Your task to perform on an android device: Search for seafood restaurants on Google Maps Image 0: 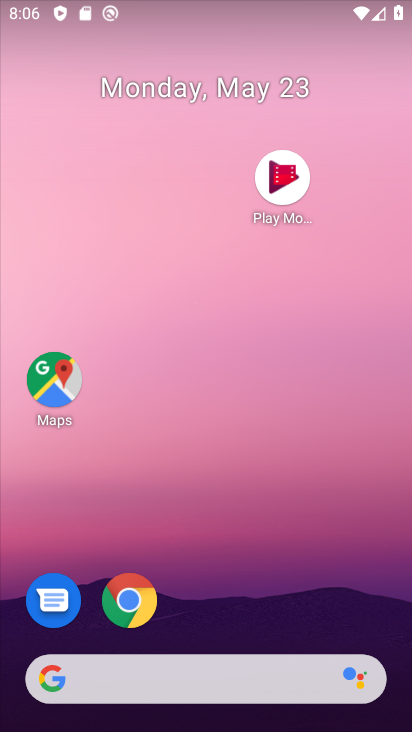
Step 0: drag from (164, 275) to (152, 228)
Your task to perform on an android device: Search for seafood restaurants on Google Maps Image 1: 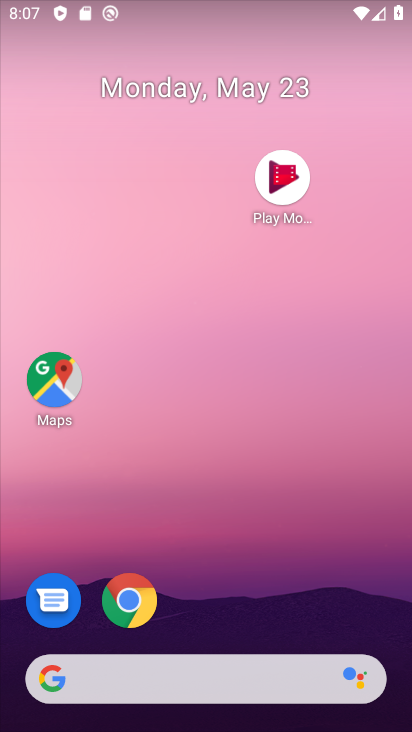
Step 1: drag from (312, 678) to (272, 36)
Your task to perform on an android device: Search for seafood restaurants on Google Maps Image 2: 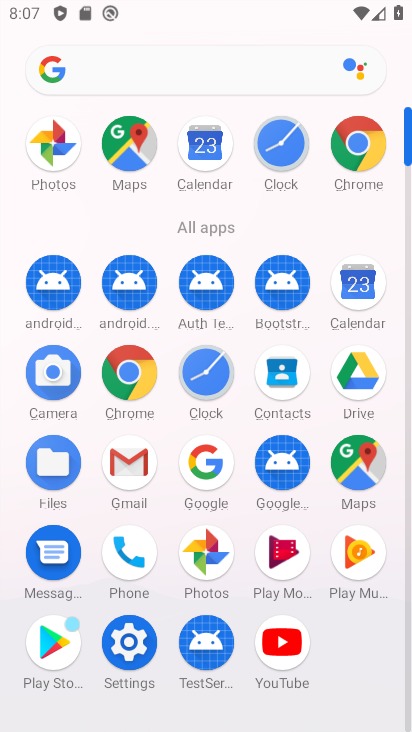
Step 2: click (361, 458)
Your task to perform on an android device: Search for seafood restaurants on Google Maps Image 3: 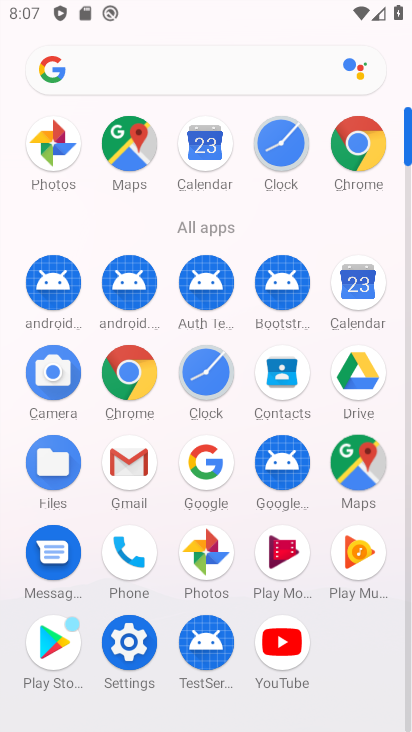
Step 3: click (361, 458)
Your task to perform on an android device: Search for seafood restaurants on Google Maps Image 4: 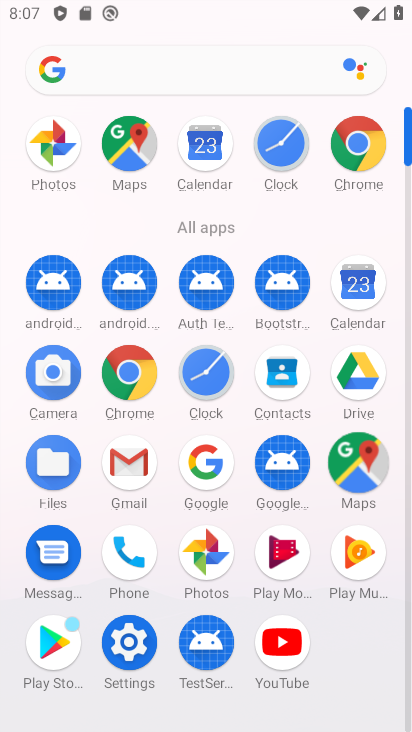
Step 4: click (361, 458)
Your task to perform on an android device: Search for seafood restaurants on Google Maps Image 5: 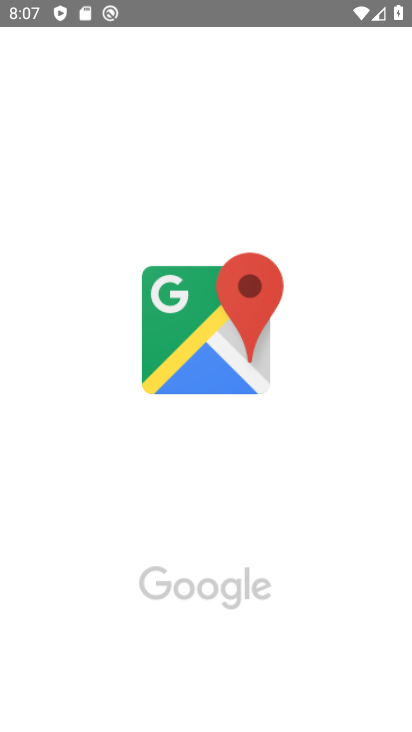
Step 5: click (368, 448)
Your task to perform on an android device: Search for seafood restaurants on Google Maps Image 6: 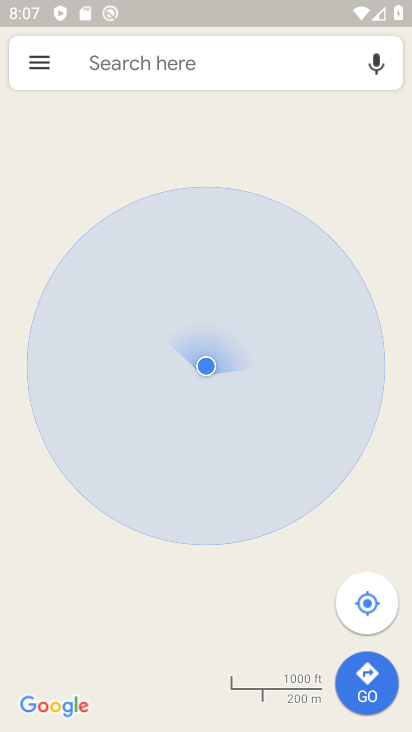
Step 6: click (66, 70)
Your task to perform on an android device: Search for seafood restaurants on Google Maps Image 7: 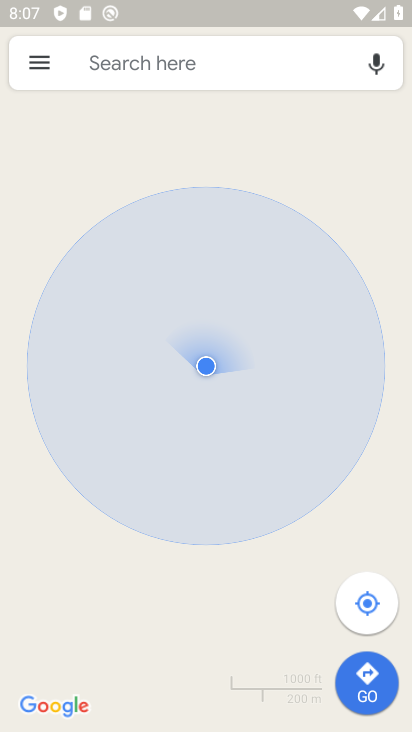
Step 7: click (89, 61)
Your task to perform on an android device: Search for seafood restaurants on Google Maps Image 8: 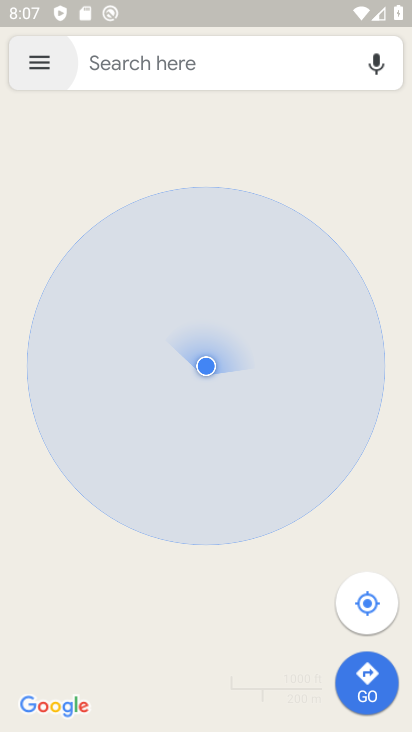
Step 8: click (94, 60)
Your task to perform on an android device: Search for seafood restaurants on Google Maps Image 9: 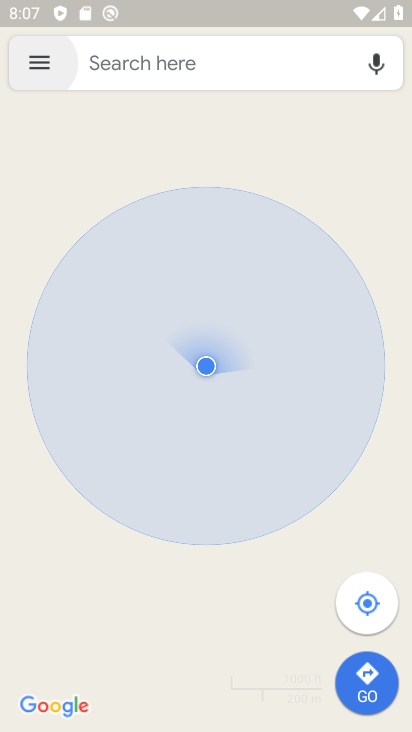
Step 9: click (94, 60)
Your task to perform on an android device: Search for seafood restaurants on Google Maps Image 10: 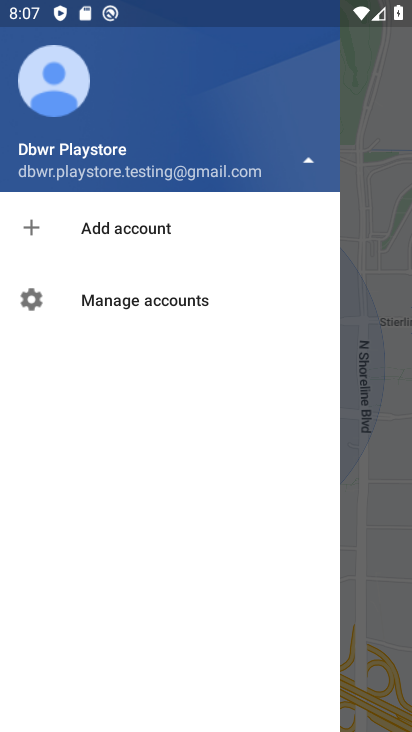
Step 10: click (376, 245)
Your task to perform on an android device: Search for seafood restaurants on Google Maps Image 11: 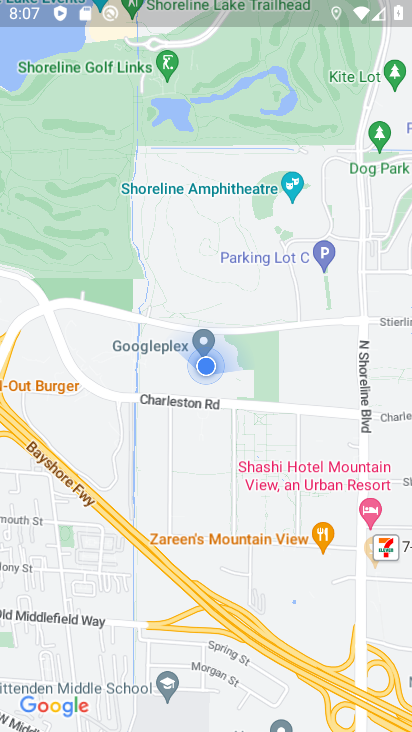
Step 11: drag from (178, 51) to (240, 472)
Your task to perform on an android device: Search for seafood restaurants on Google Maps Image 12: 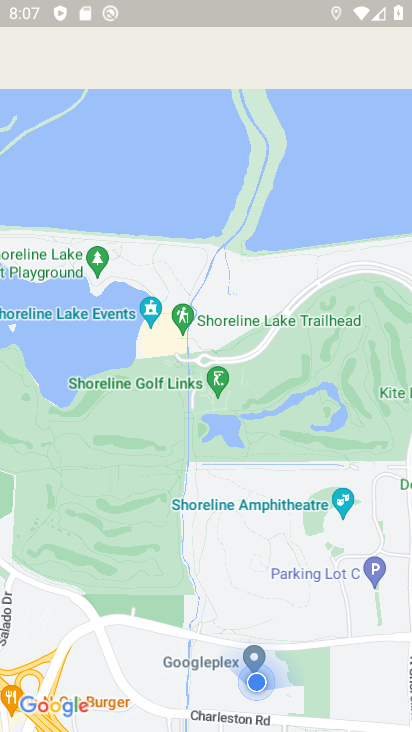
Step 12: drag from (116, 144) to (180, 395)
Your task to perform on an android device: Search for seafood restaurants on Google Maps Image 13: 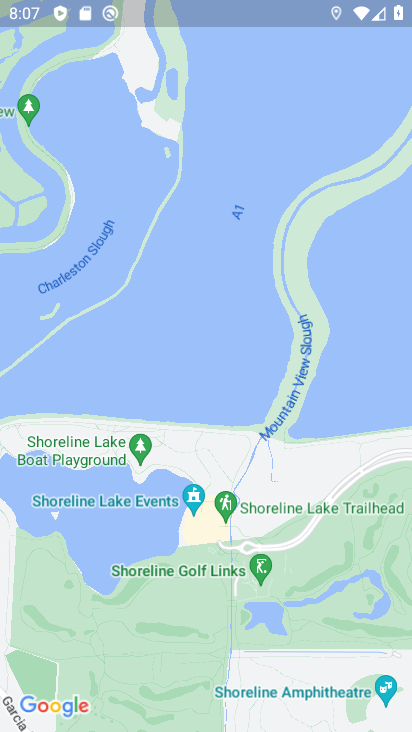
Step 13: drag from (153, 212) to (208, 545)
Your task to perform on an android device: Search for seafood restaurants on Google Maps Image 14: 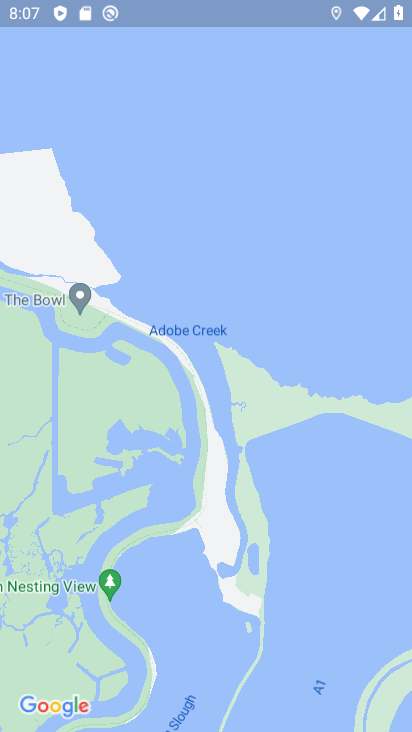
Step 14: drag from (140, 141) to (244, 652)
Your task to perform on an android device: Search for seafood restaurants on Google Maps Image 15: 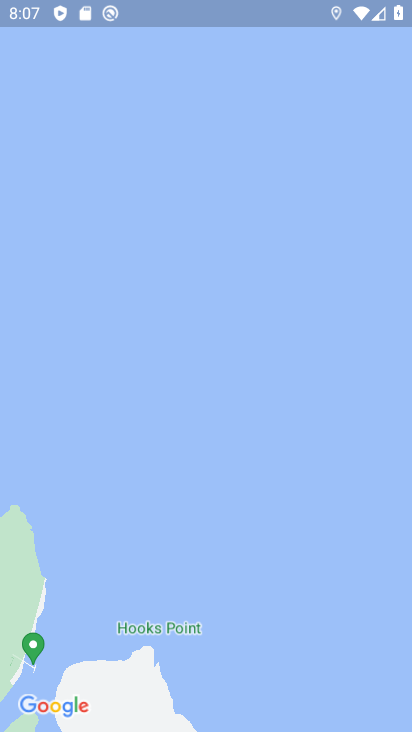
Step 15: drag from (219, 565) to (222, 529)
Your task to perform on an android device: Search for seafood restaurants on Google Maps Image 16: 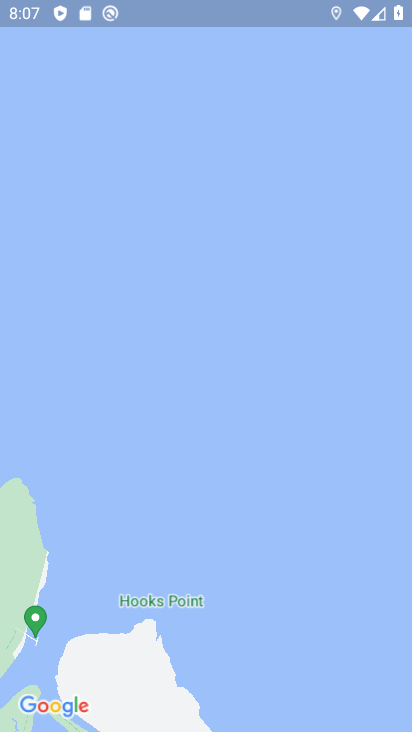
Step 16: drag from (160, 227) to (177, 350)
Your task to perform on an android device: Search for seafood restaurants on Google Maps Image 17: 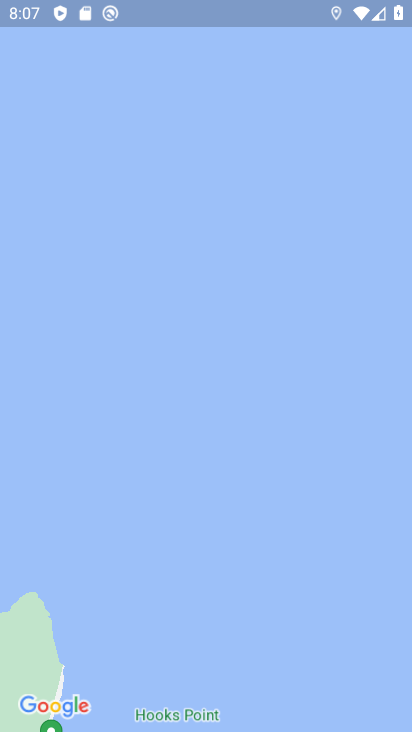
Step 17: press back button
Your task to perform on an android device: Search for seafood restaurants on Google Maps Image 18: 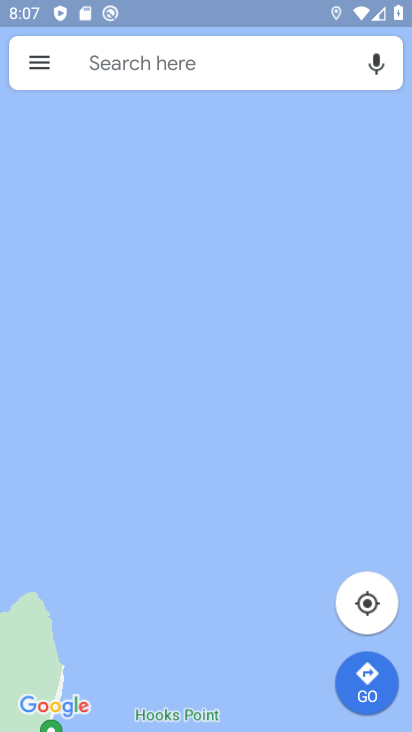
Step 18: click (102, 65)
Your task to perform on an android device: Search for seafood restaurants on Google Maps Image 19: 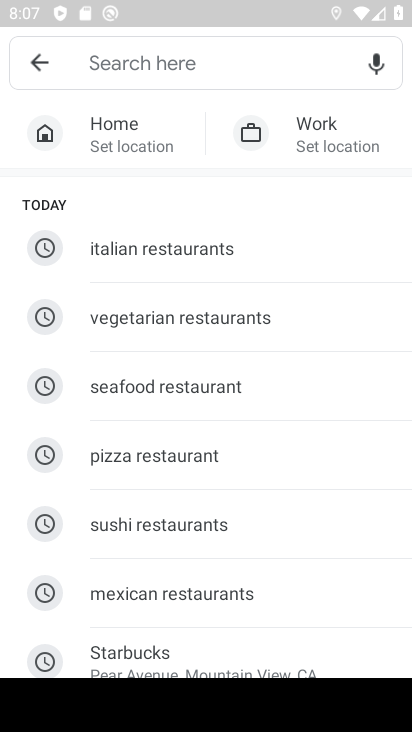
Step 19: click (146, 377)
Your task to perform on an android device: Search for seafood restaurants on Google Maps Image 20: 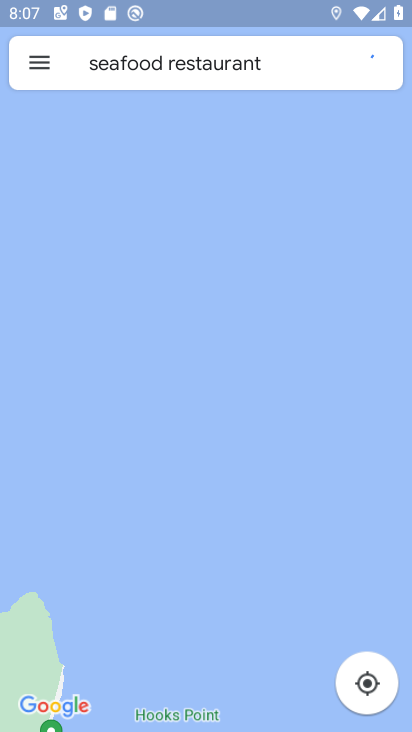
Step 20: task complete